Your task to perform on an android device: Search for pizza restaurants on Maps Image 0: 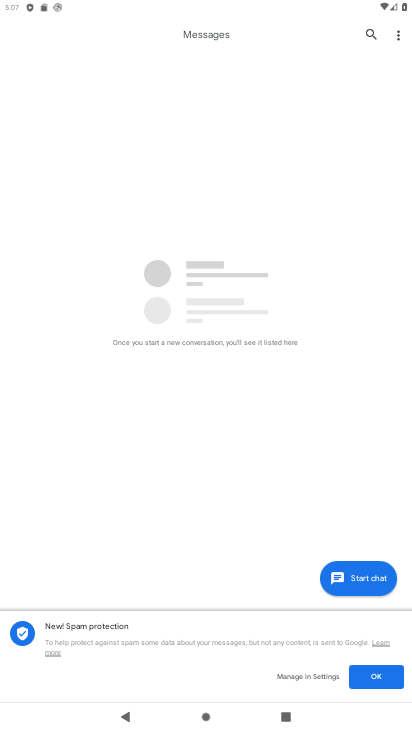
Step 0: press home button
Your task to perform on an android device: Search for pizza restaurants on Maps Image 1: 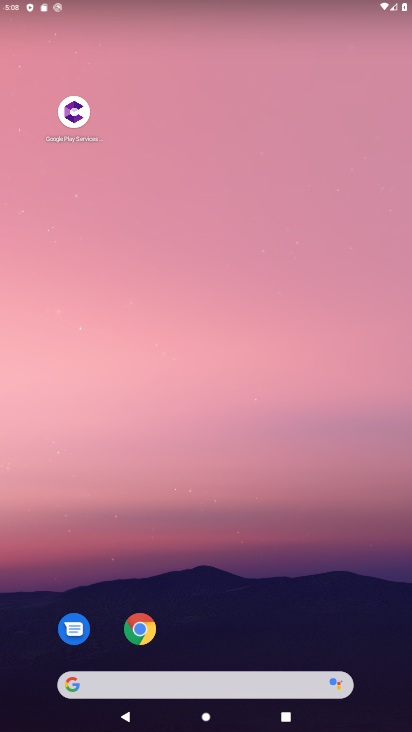
Step 1: drag from (313, 679) to (411, 223)
Your task to perform on an android device: Search for pizza restaurants on Maps Image 2: 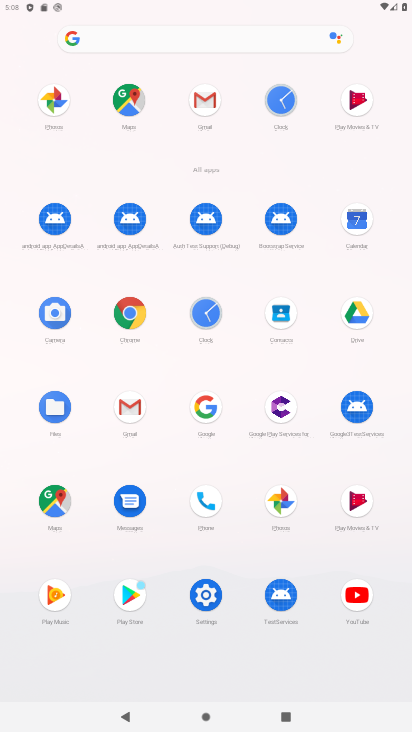
Step 2: click (126, 103)
Your task to perform on an android device: Search for pizza restaurants on Maps Image 3: 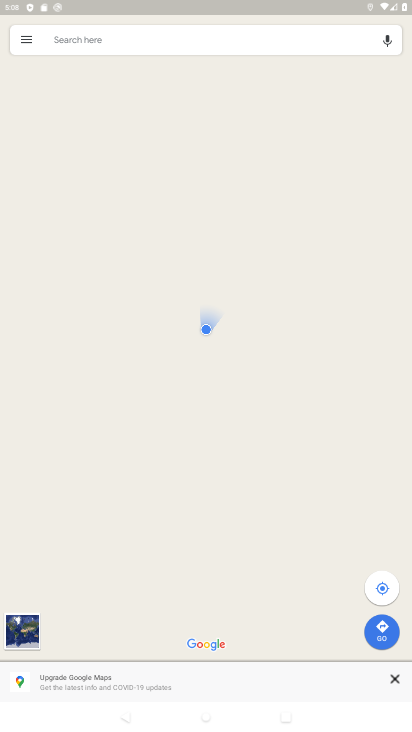
Step 3: click (132, 43)
Your task to perform on an android device: Search for pizza restaurants on Maps Image 4: 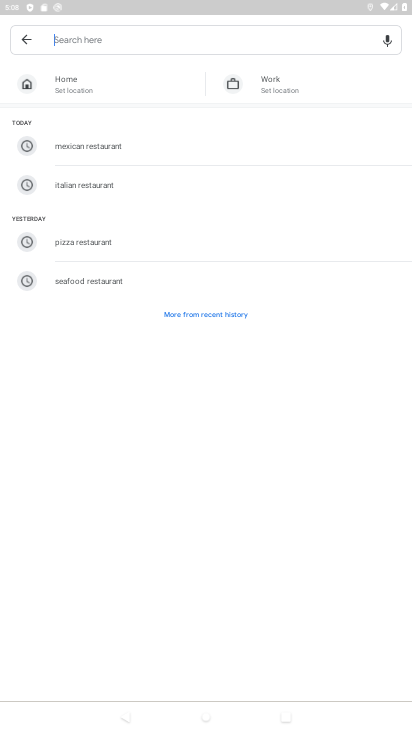
Step 4: type "pizza restaurants "
Your task to perform on an android device: Search for pizza restaurants on Maps Image 5: 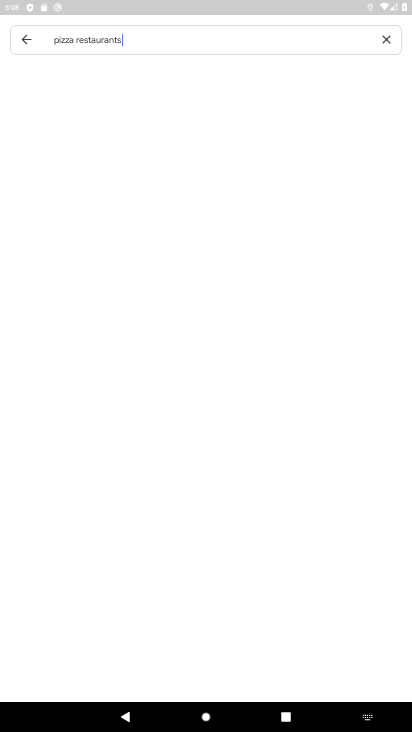
Step 5: type ""
Your task to perform on an android device: Search for pizza restaurants on Maps Image 6: 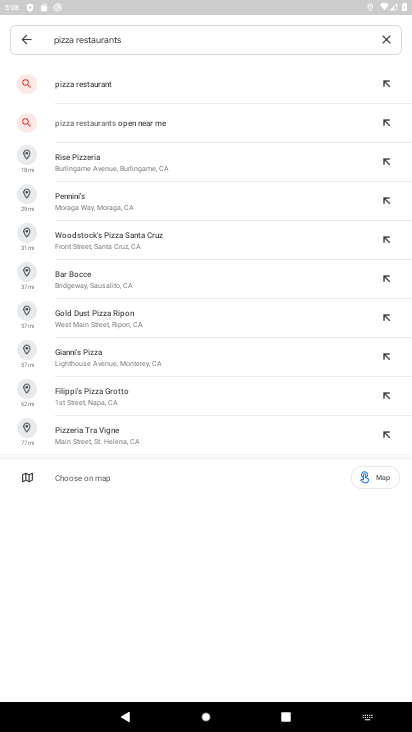
Step 6: click (99, 90)
Your task to perform on an android device: Search for pizza restaurants on Maps Image 7: 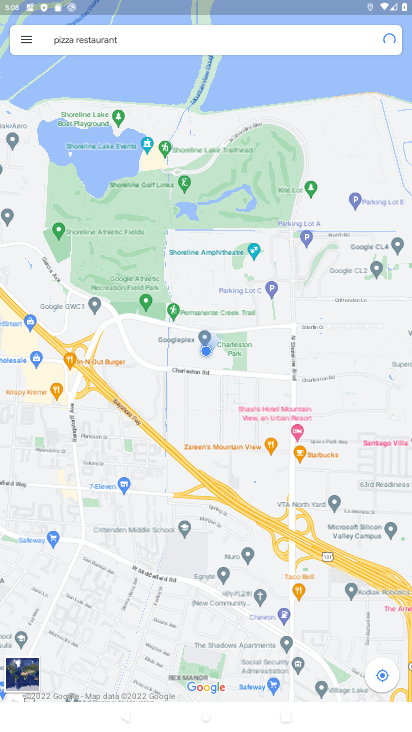
Step 7: task complete